Your task to perform on an android device: open chrome privacy settings Image 0: 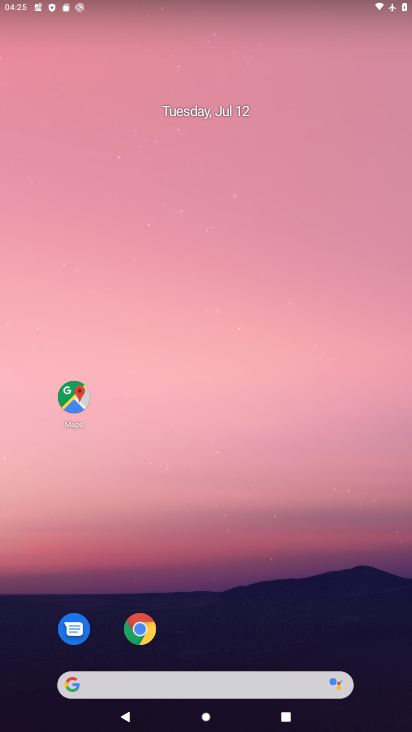
Step 0: drag from (350, 585) to (295, 152)
Your task to perform on an android device: open chrome privacy settings Image 1: 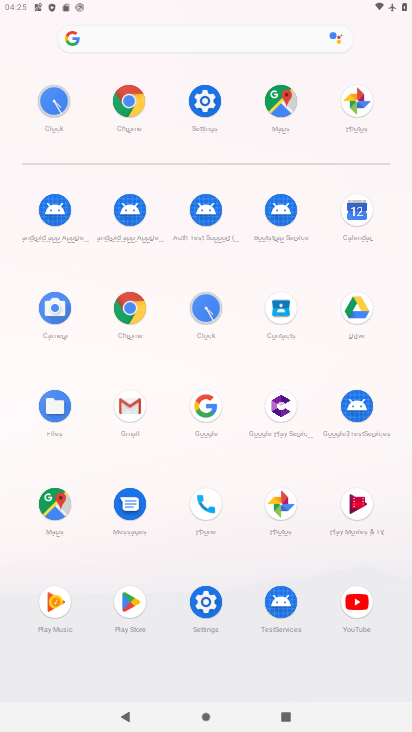
Step 1: click (130, 102)
Your task to perform on an android device: open chrome privacy settings Image 2: 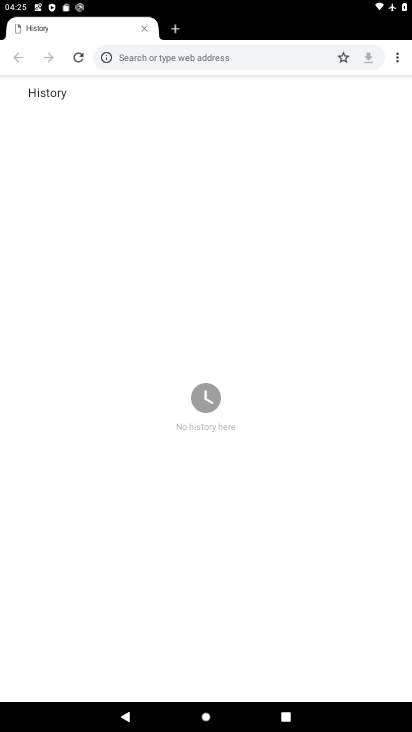
Step 2: drag from (402, 53) to (278, 267)
Your task to perform on an android device: open chrome privacy settings Image 3: 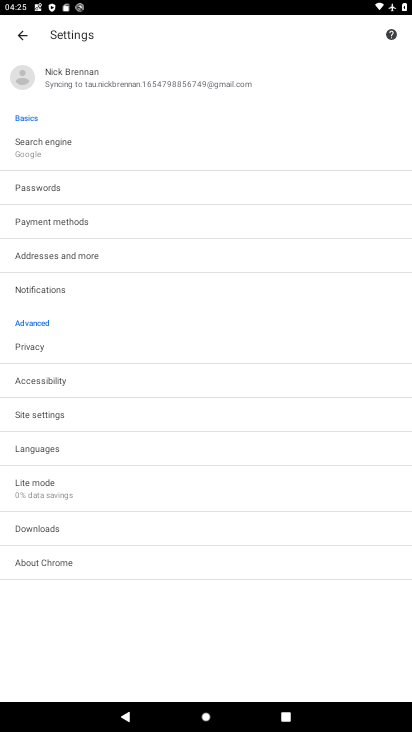
Step 3: click (46, 348)
Your task to perform on an android device: open chrome privacy settings Image 4: 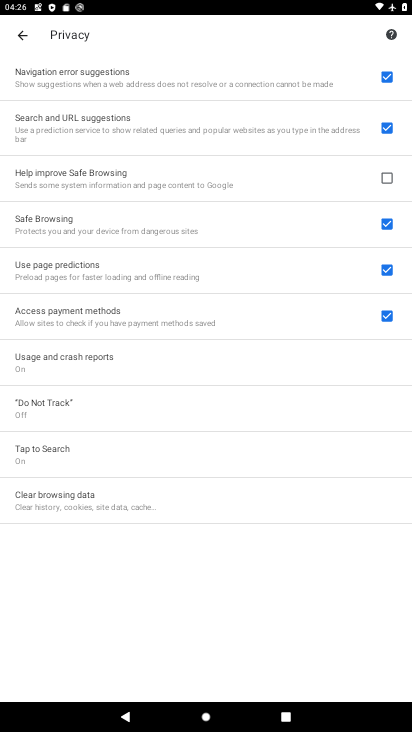
Step 4: task complete